Your task to perform on an android device: Open the stopwatch Image 0: 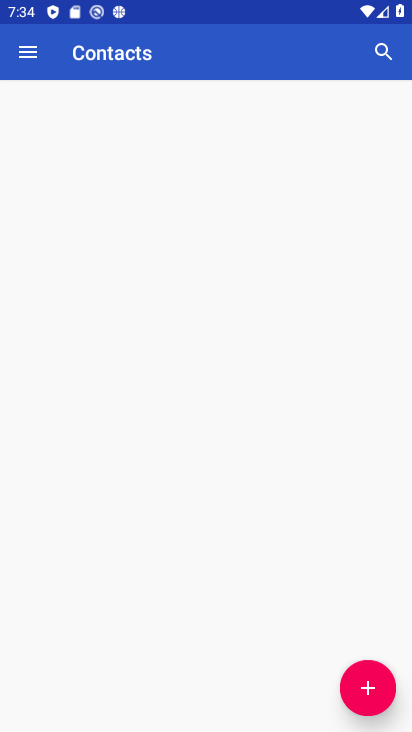
Step 0: drag from (252, 620) to (233, 352)
Your task to perform on an android device: Open the stopwatch Image 1: 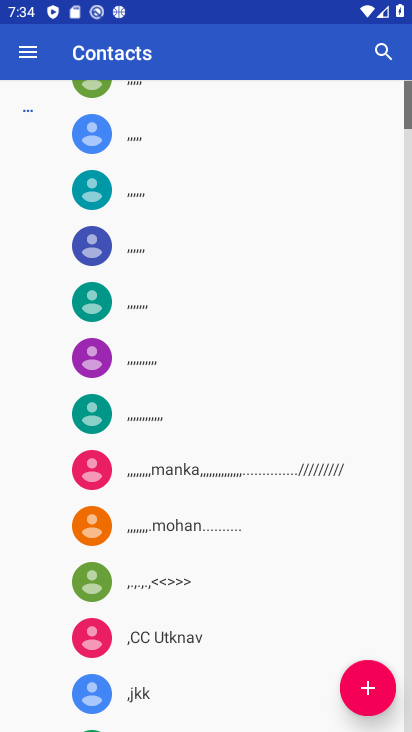
Step 1: press home button
Your task to perform on an android device: Open the stopwatch Image 2: 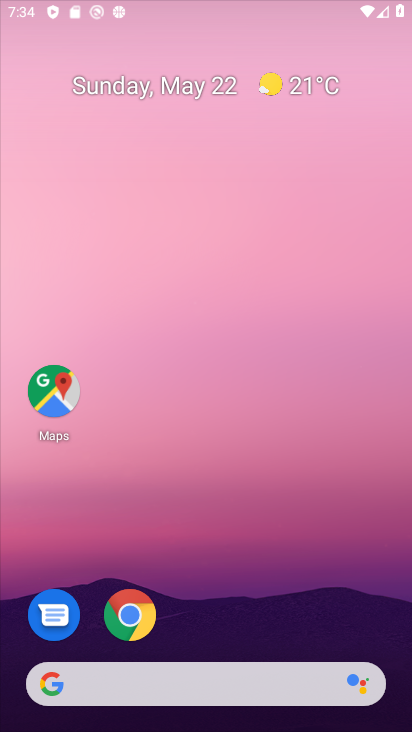
Step 2: drag from (261, 582) to (234, 83)
Your task to perform on an android device: Open the stopwatch Image 3: 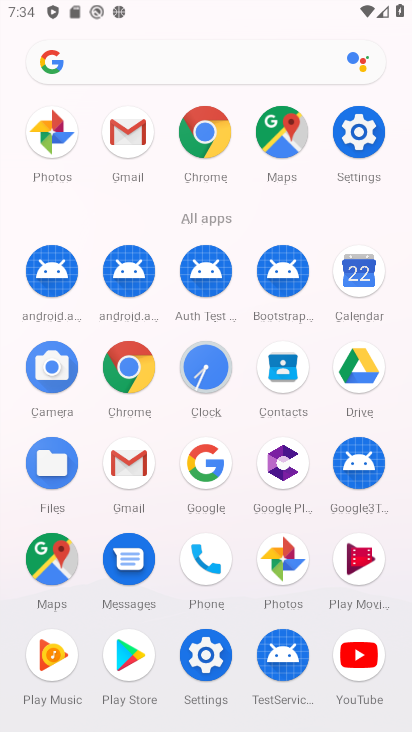
Step 3: click (200, 357)
Your task to perform on an android device: Open the stopwatch Image 4: 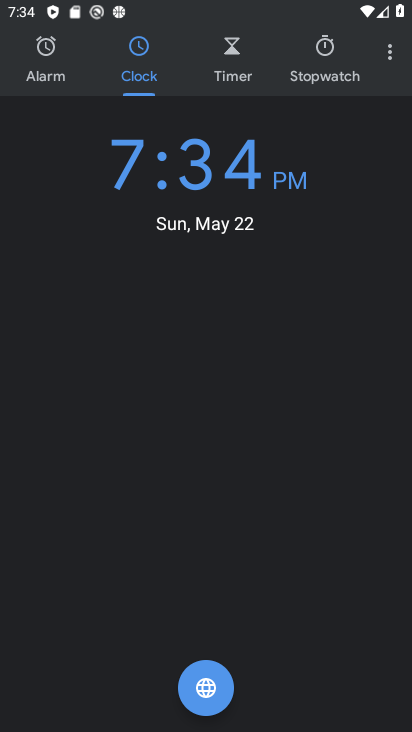
Step 4: click (310, 50)
Your task to perform on an android device: Open the stopwatch Image 5: 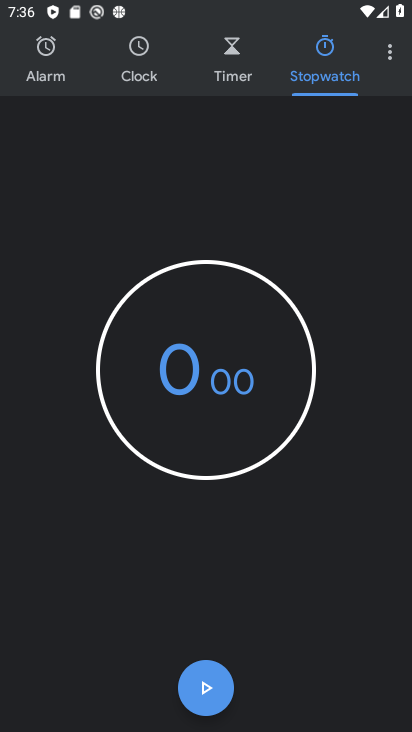
Step 5: task complete